Your task to perform on an android device: Go to ESPN.com Image 0: 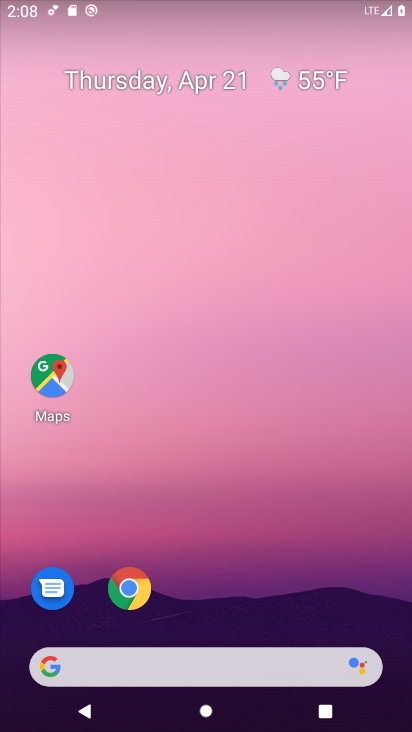
Step 0: click (113, 587)
Your task to perform on an android device: Go to ESPN.com Image 1: 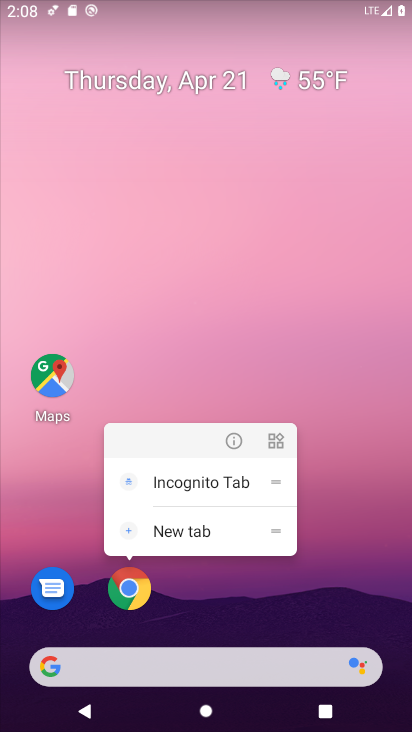
Step 1: click (113, 587)
Your task to perform on an android device: Go to ESPN.com Image 2: 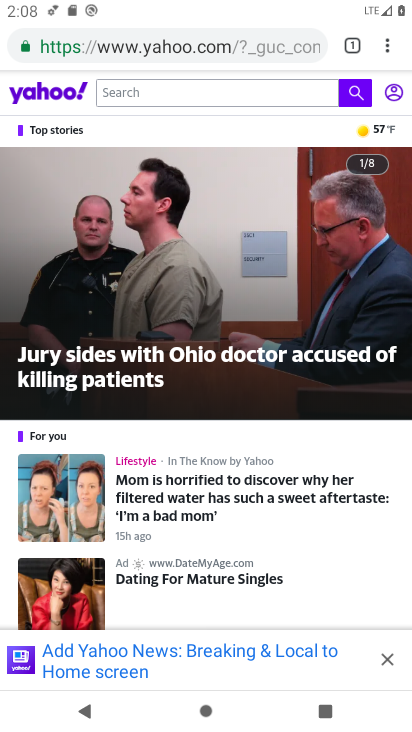
Step 2: click (146, 47)
Your task to perform on an android device: Go to ESPN.com Image 3: 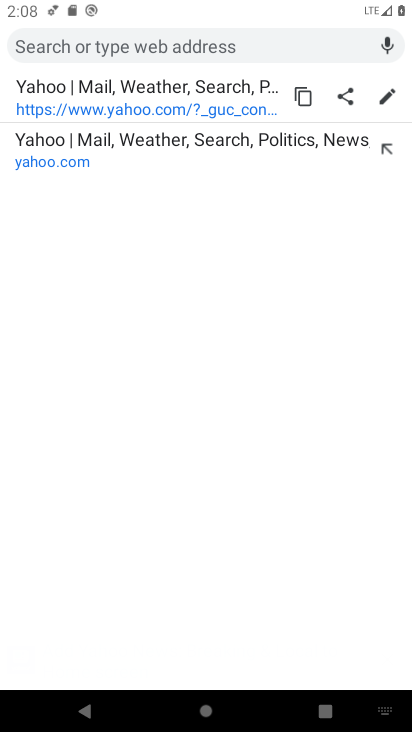
Step 3: type "ESPN.com"
Your task to perform on an android device: Go to ESPN.com Image 4: 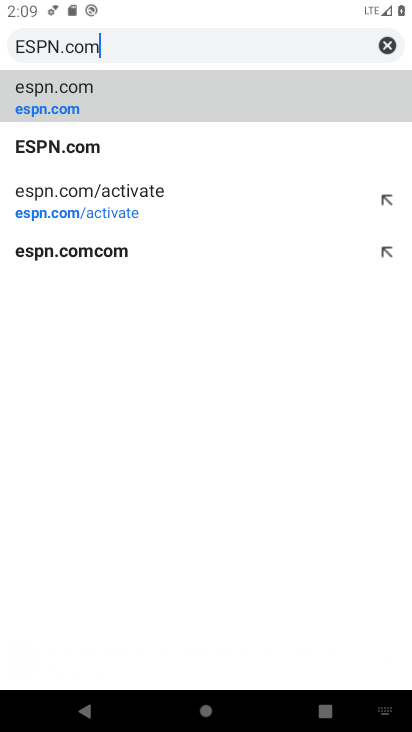
Step 4: click (71, 87)
Your task to perform on an android device: Go to ESPN.com Image 5: 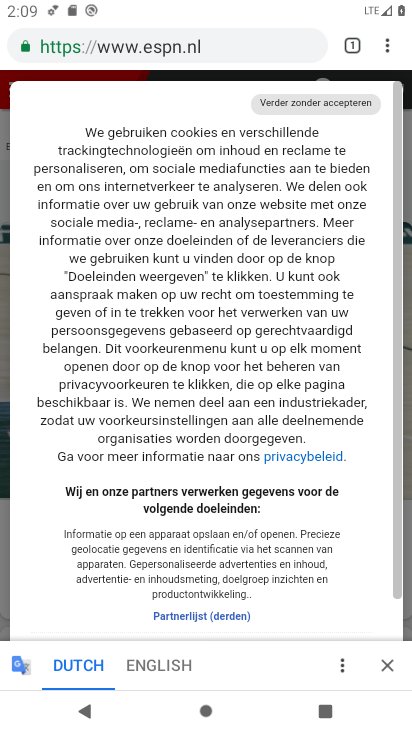
Step 5: task complete